Your task to perform on an android device: add a label to a message in the gmail app Image 0: 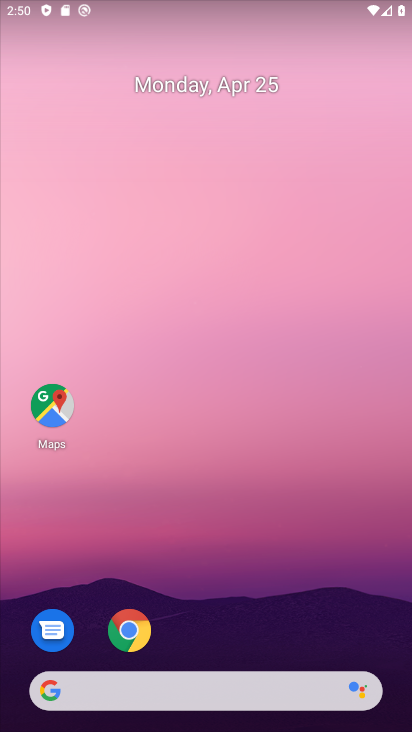
Step 0: drag from (223, 566) to (176, 75)
Your task to perform on an android device: add a label to a message in the gmail app Image 1: 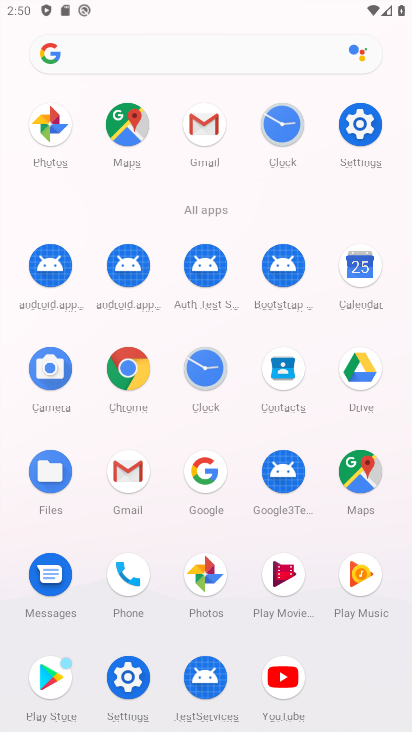
Step 1: click (202, 118)
Your task to perform on an android device: add a label to a message in the gmail app Image 2: 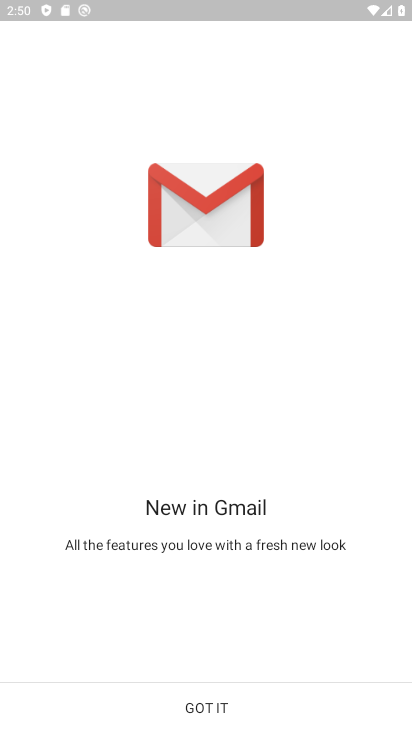
Step 2: click (223, 709)
Your task to perform on an android device: add a label to a message in the gmail app Image 3: 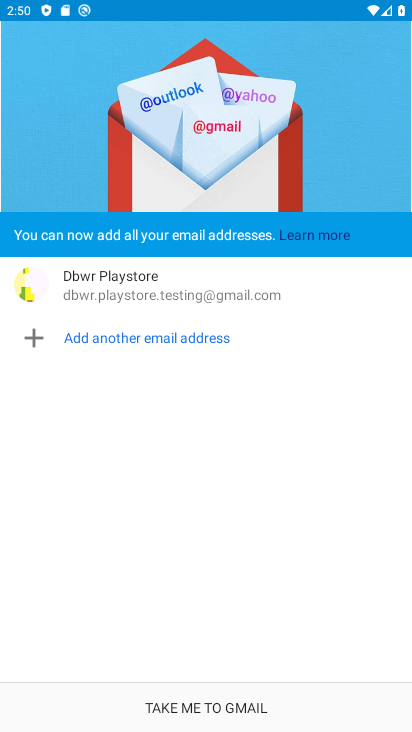
Step 3: click (223, 706)
Your task to perform on an android device: add a label to a message in the gmail app Image 4: 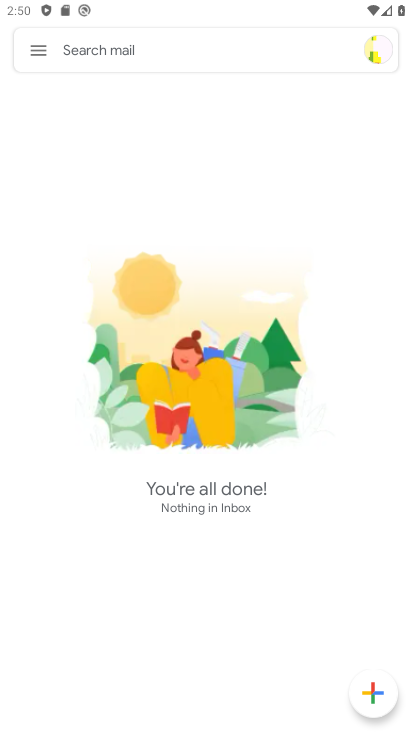
Step 4: drag from (239, 587) to (245, 99)
Your task to perform on an android device: add a label to a message in the gmail app Image 5: 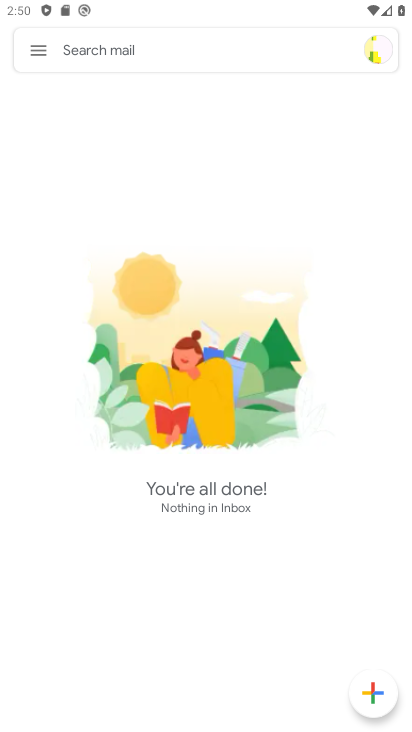
Step 5: click (42, 53)
Your task to perform on an android device: add a label to a message in the gmail app Image 6: 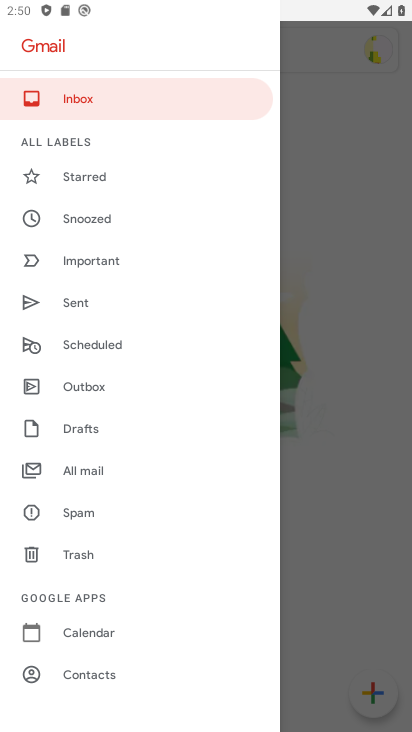
Step 6: click (95, 465)
Your task to perform on an android device: add a label to a message in the gmail app Image 7: 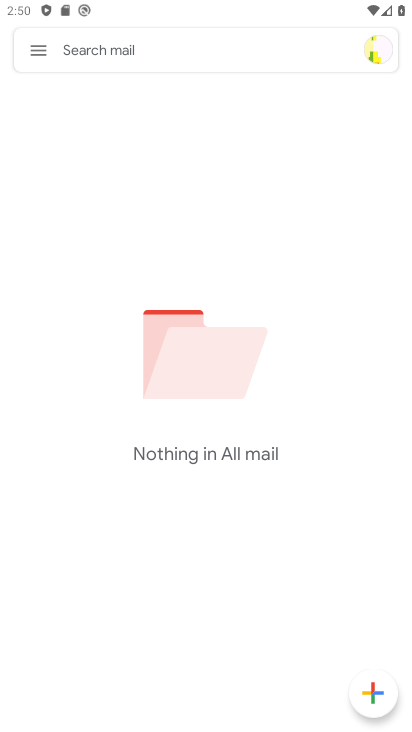
Step 7: task complete